Your task to perform on an android device: Go to notification settings Image 0: 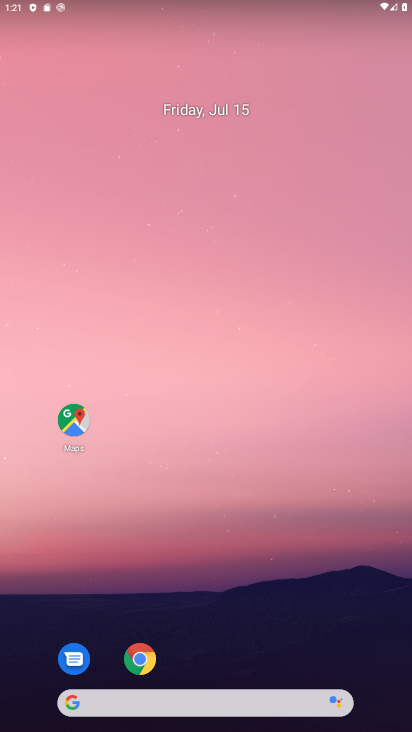
Step 0: drag from (216, 687) to (225, 201)
Your task to perform on an android device: Go to notification settings Image 1: 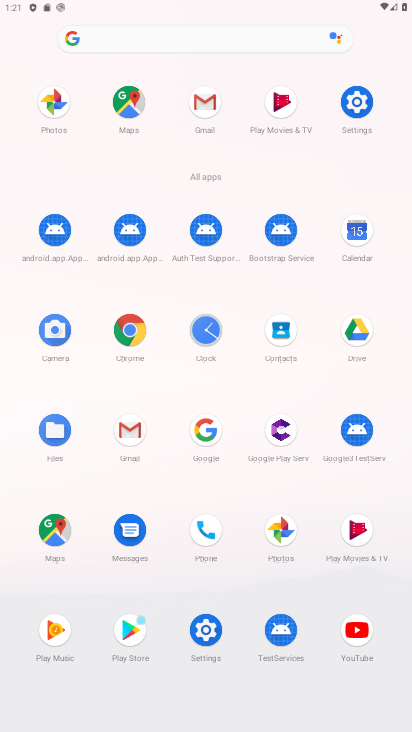
Step 1: click (205, 628)
Your task to perform on an android device: Go to notification settings Image 2: 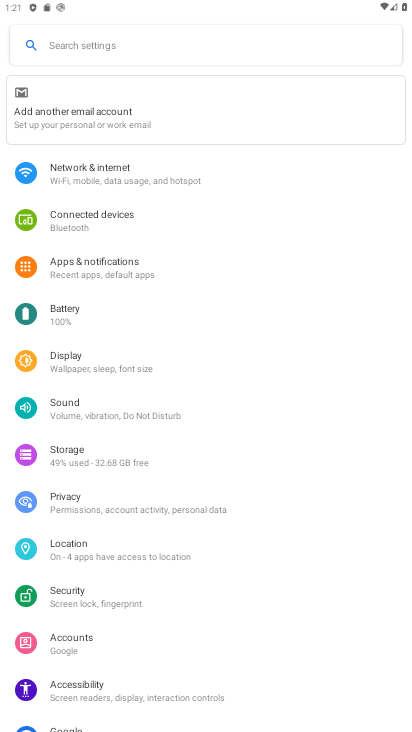
Step 2: click (116, 271)
Your task to perform on an android device: Go to notification settings Image 3: 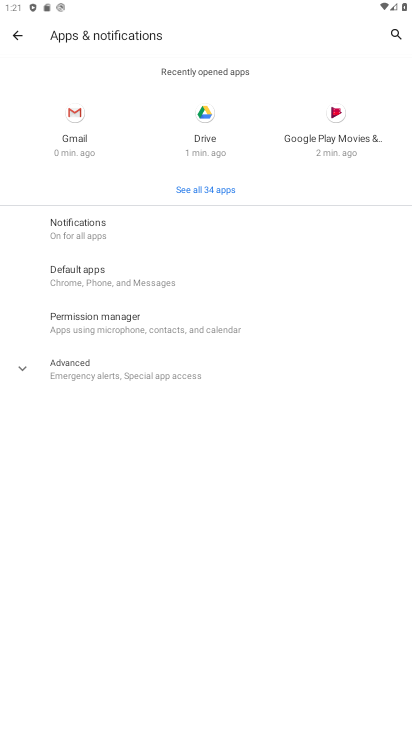
Step 3: click (94, 230)
Your task to perform on an android device: Go to notification settings Image 4: 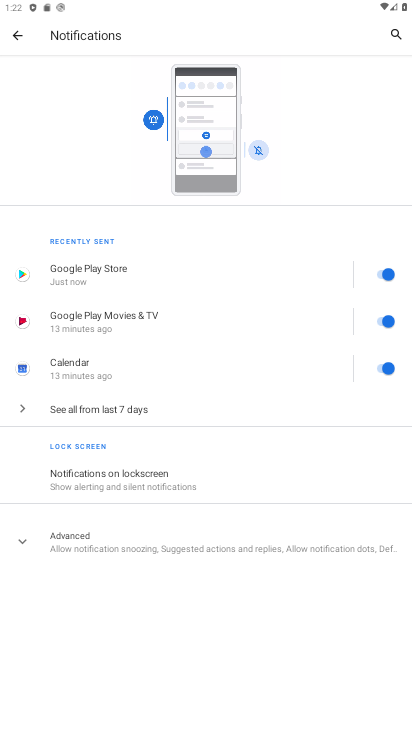
Step 4: task complete